Your task to perform on an android device: Open Chrome and go to settings Image 0: 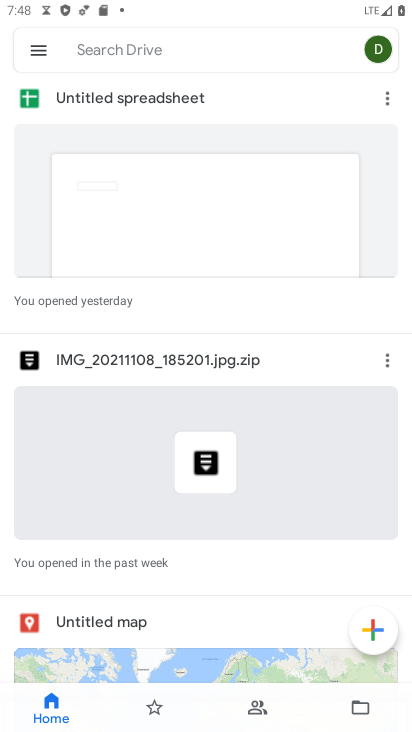
Step 0: press home button
Your task to perform on an android device: Open Chrome and go to settings Image 1: 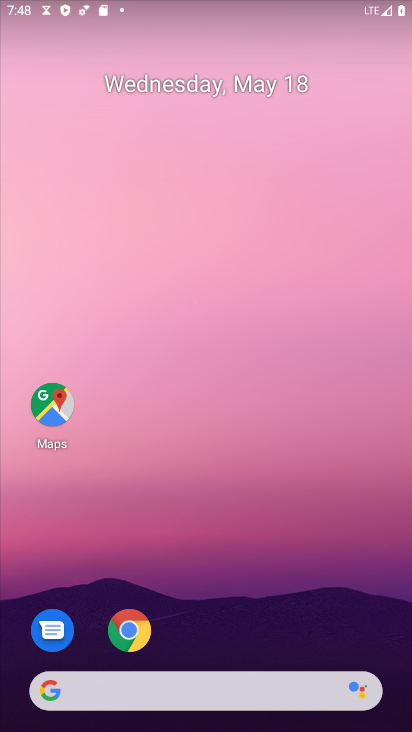
Step 1: drag from (268, 563) to (223, 107)
Your task to perform on an android device: Open Chrome and go to settings Image 2: 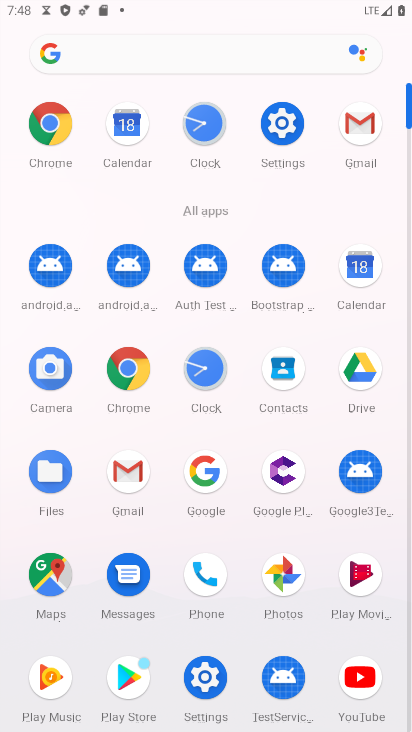
Step 2: click (318, 124)
Your task to perform on an android device: Open Chrome and go to settings Image 3: 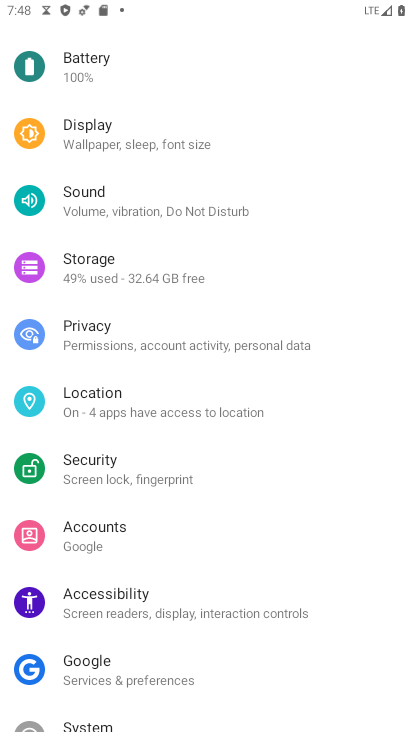
Step 3: task complete